Your task to perform on an android device: Open calendar and show me the first week of next month Image 0: 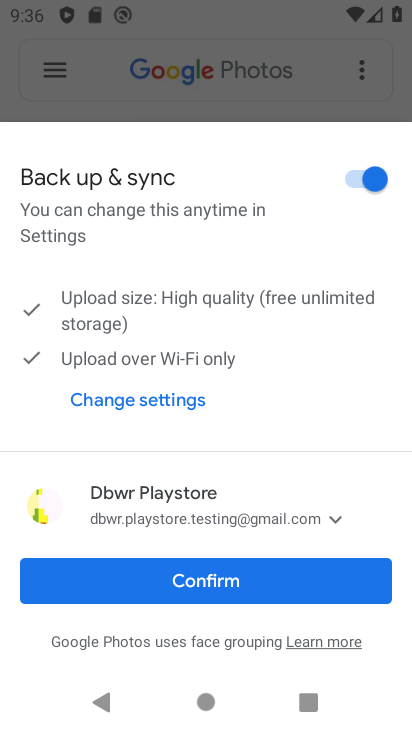
Step 0: press back button
Your task to perform on an android device: Open calendar and show me the first week of next month Image 1: 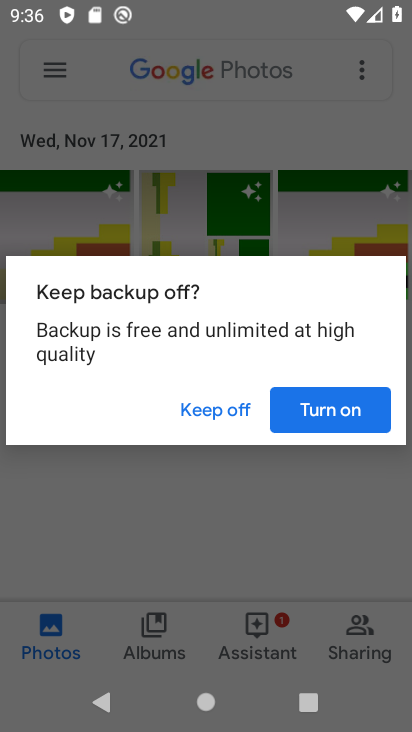
Step 1: press back button
Your task to perform on an android device: Open calendar and show me the first week of next month Image 2: 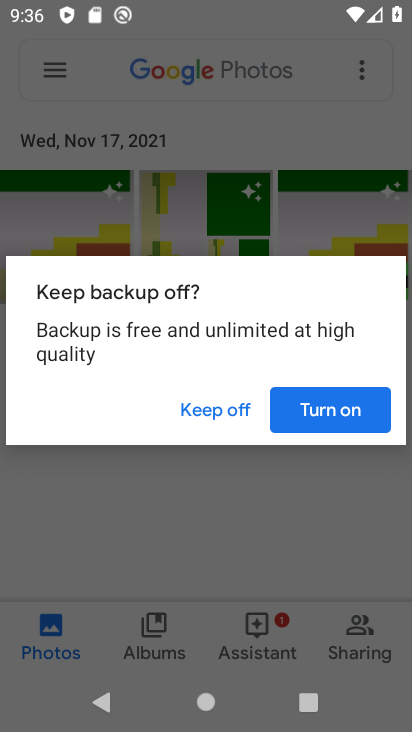
Step 2: press home button
Your task to perform on an android device: Open calendar and show me the first week of next month Image 3: 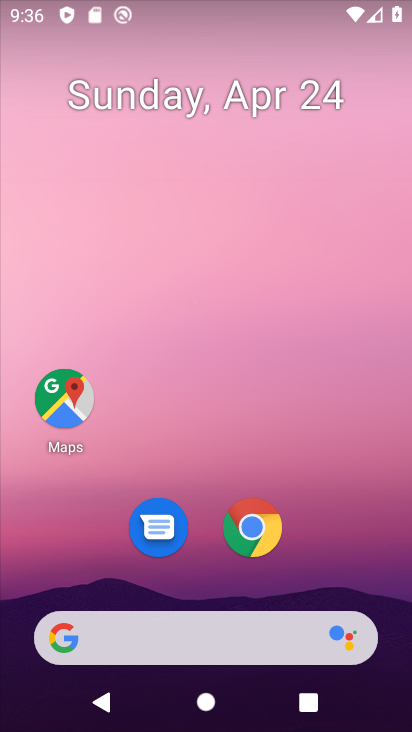
Step 3: drag from (211, 576) to (333, 32)
Your task to perform on an android device: Open calendar and show me the first week of next month Image 4: 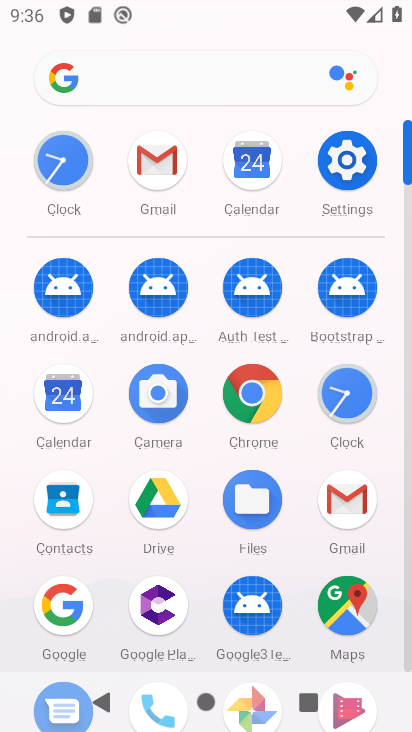
Step 4: click (59, 395)
Your task to perform on an android device: Open calendar and show me the first week of next month Image 5: 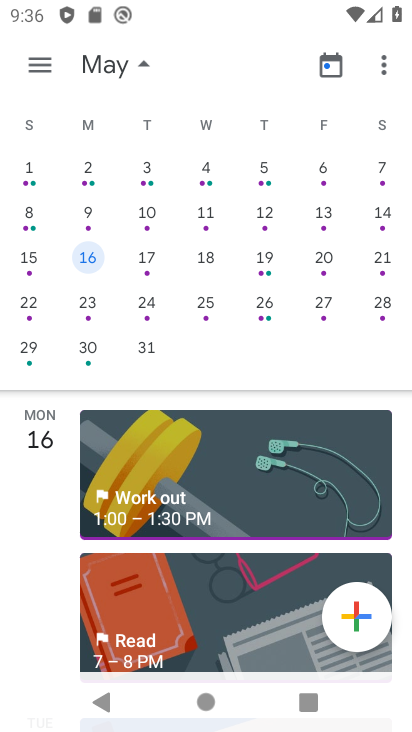
Step 5: click (84, 166)
Your task to perform on an android device: Open calendar and show me the first week of next month Image 6: 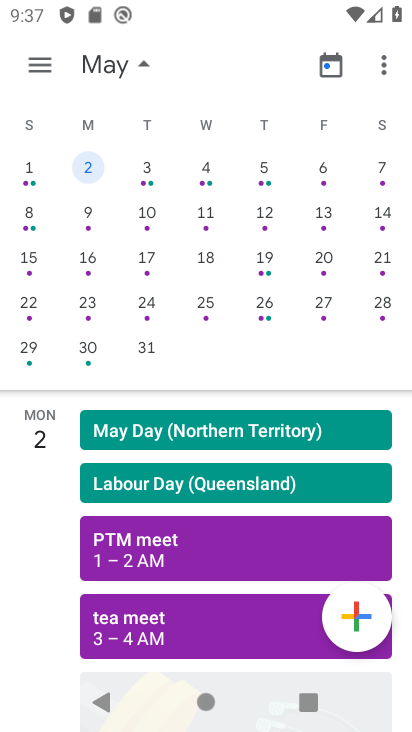
Step 6: task complete